Your task to perform on an android device: Open Reddit.com Image 0: 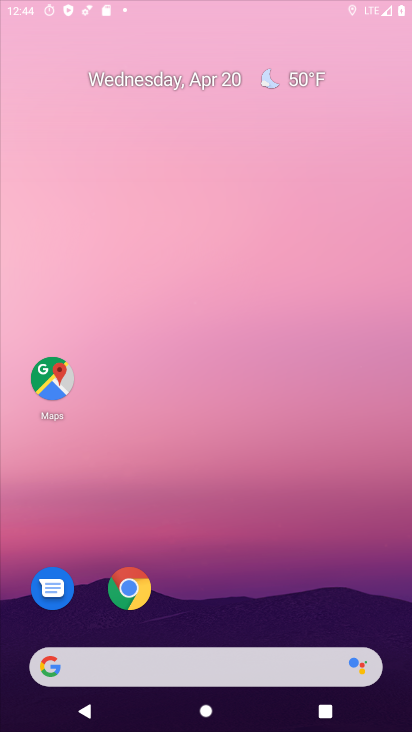
Step 0: drag from (202, 559) to (192, 1)
Your task to perform on an android device: Open Reddit.com Image 1: 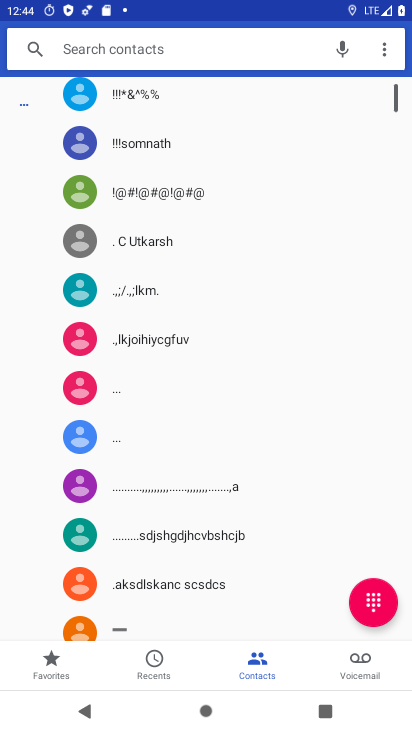
Step 1: press home button
Your task to perform on an android device: Open Reddit.com Image 2: 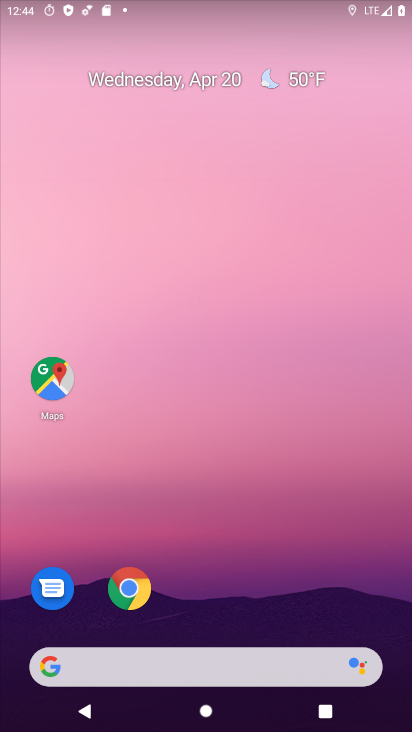
Step 2: click (122, 585)
Your task to perform on an android device: Open Reddit.com Image 3: 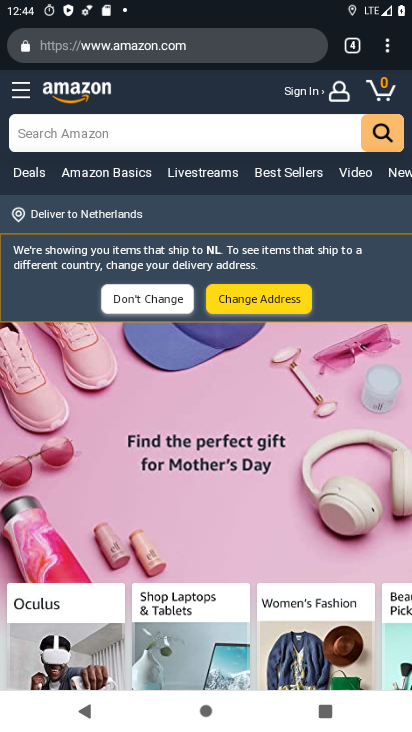
Step 3: click (353, 41)
Your task to perform on an android device: Open Reddit.com Image 4: 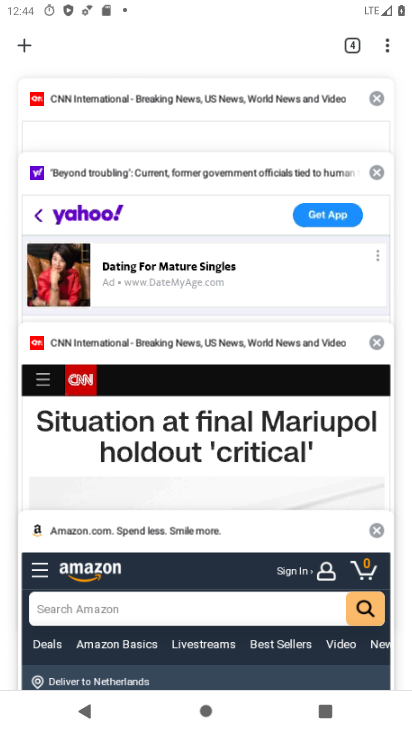
Step 4: click (20, 49)
Your task to perform on an android device: Open Reddit.com Image 5: 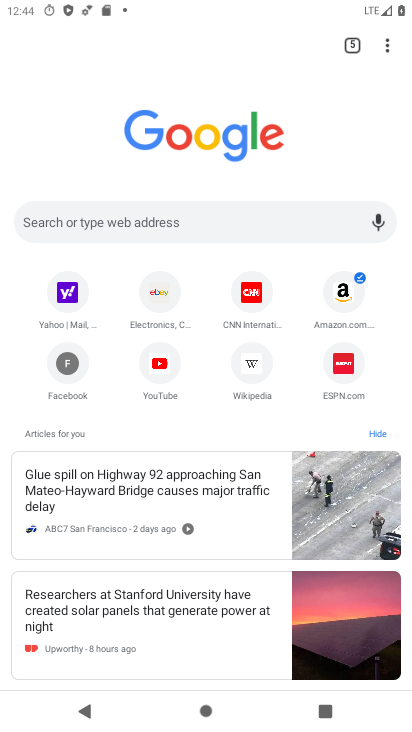
Step 5: click (212, 226)
Your task to perform on an android device: Open Reddit.com Image 6: 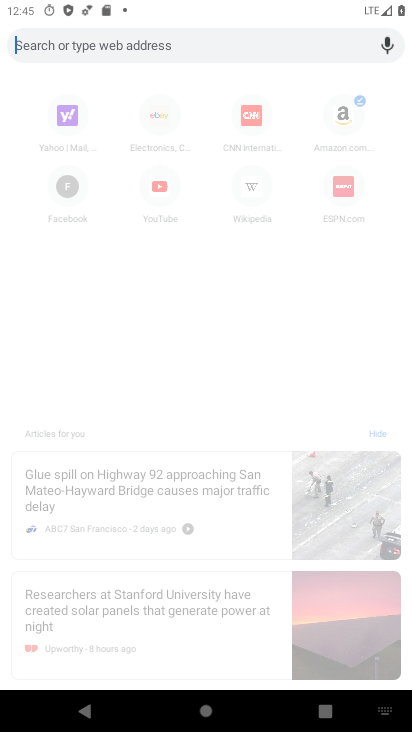
Step 6: type "reddit"
Your task to perform on an android device: Open Reddit.com Image 7: 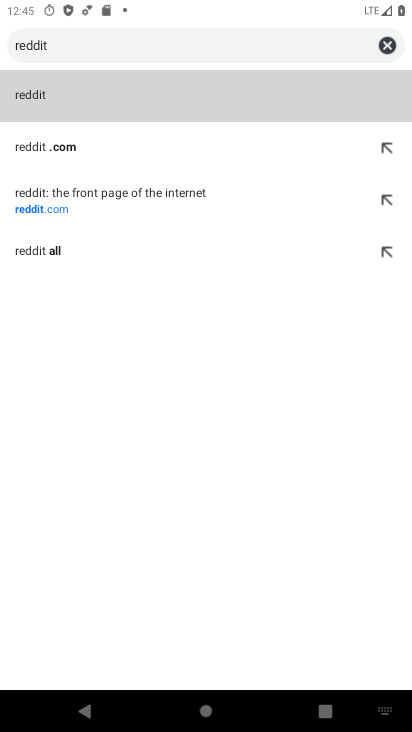
Step 7: click (86, 149)
Your task to perform on an android device: Open Reddit.com Image 8: 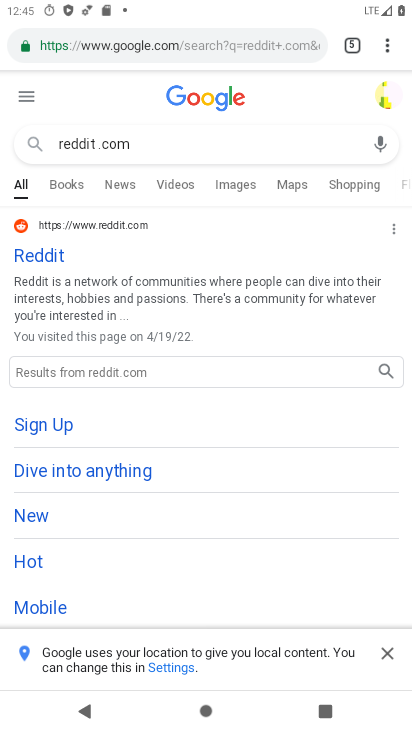
Step 8: click (48, 265)
Your task to perform on an android device: Open Reddit.com Image 9: 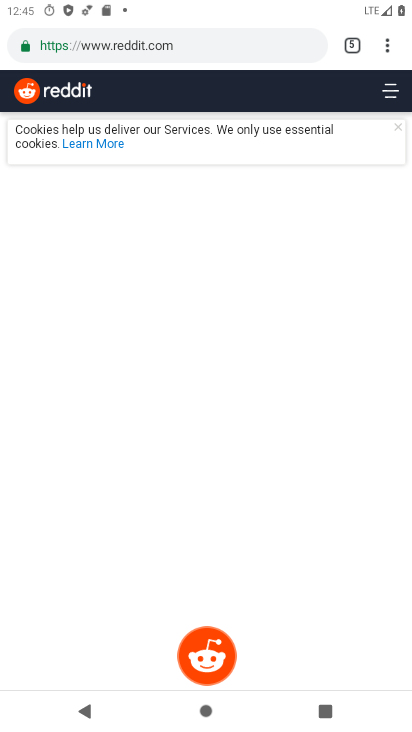
Step 9: task complete